Your task to perform on an android device: Toggle the flashlight Image 0: 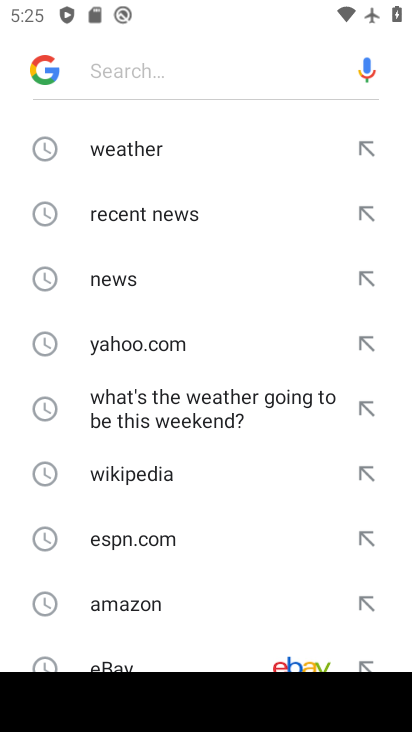
Step 0: press home button
Your task to perform on an android device: Toggle the flashlight Image 1: 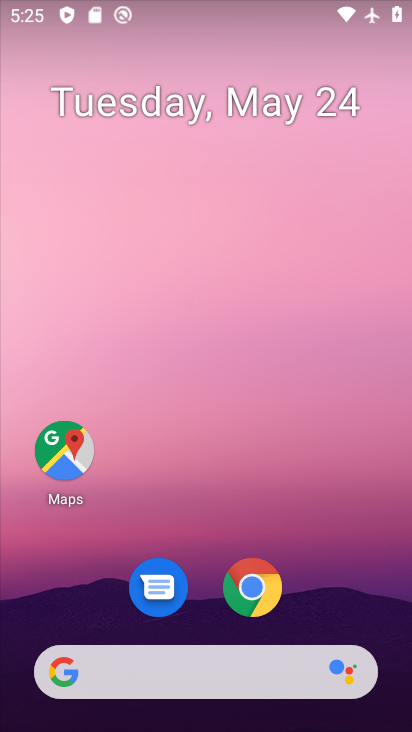
Step 1: task complete